Your task to perform on an android device: When is my next appointment? Image 0: 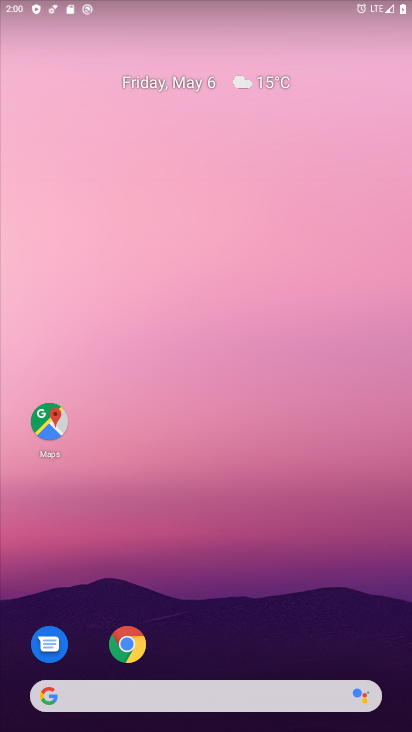
Step 0: drag from (298, 573) to (218, 227)
Your task to perform on an android device: When is my next appointment? Image 1: 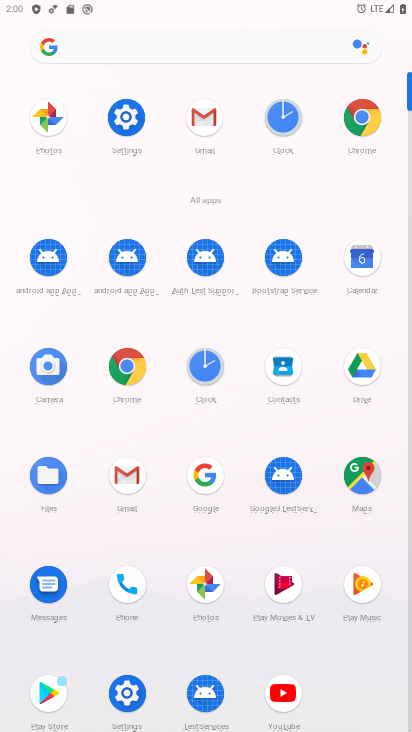
Step 1: click (369, 267)
Your task to perform on an android device: When is my next appointment? Image 2: 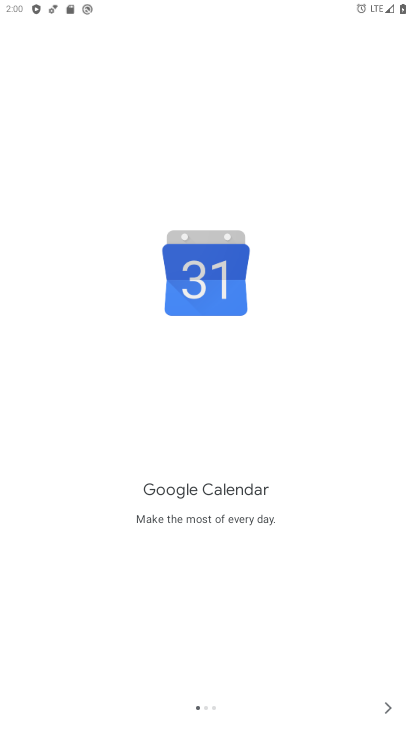
Step 2: click (392, 711)
Your task to perform on an android device: When is my next appointment? Image 3: 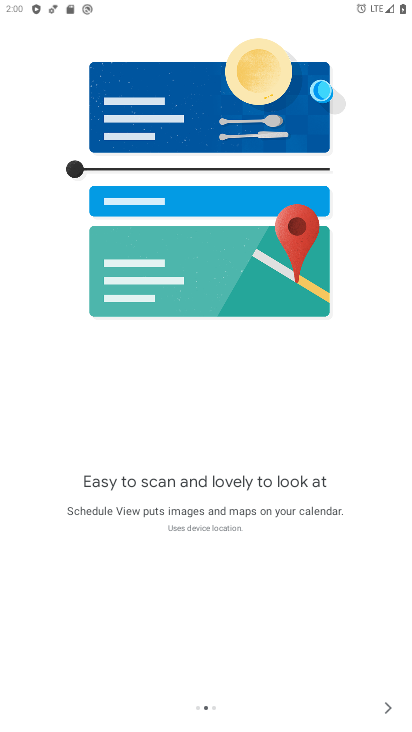
Step 3: click (391, 709)
Your task to perform on an android device: When is my next appointment? Image 4: 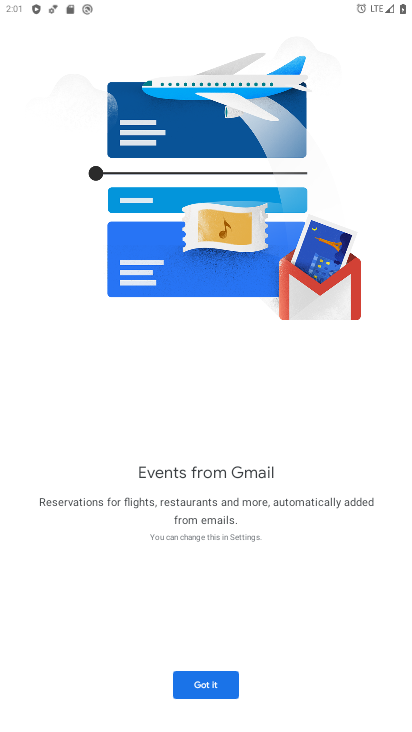
Step 4: click (223, 689)
Your task to perform on an android device: When is my next appointment? Image 5: 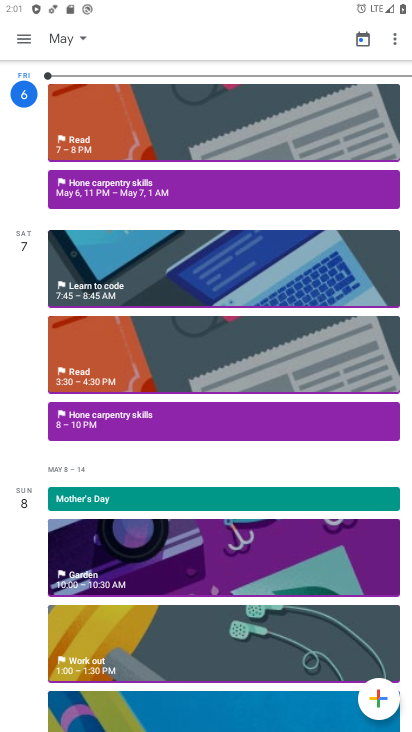
Step 5: click (27, 36)
Your task to perform on an android device: When is my next appointment? Image 6: 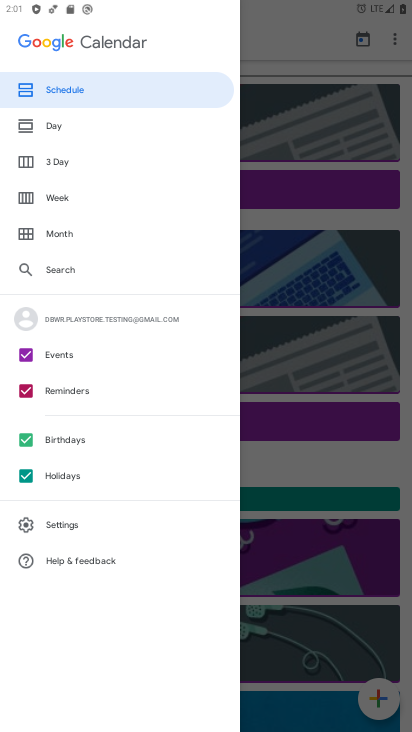
Step 6: click (65, 92)
Your task to perform on an android device: When is my next appointment? Image 7: 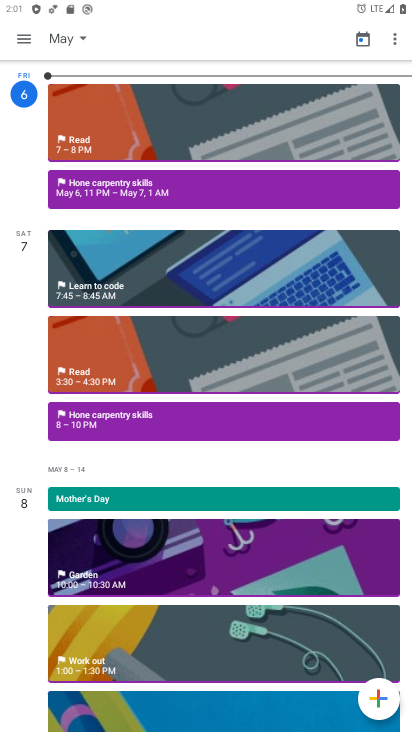
Step 7: task complete